Your task to perform on an android device: toggle location history Image 0: 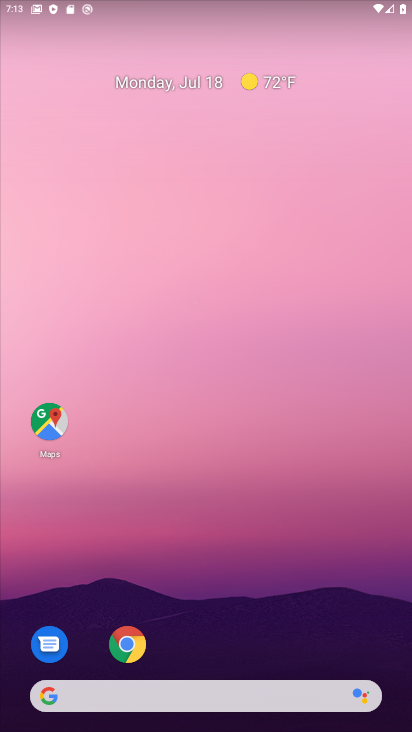
Step 0: drag from (361, 657) to (235, 42)
Your task to perform on an android device: toggle location history Image 1: 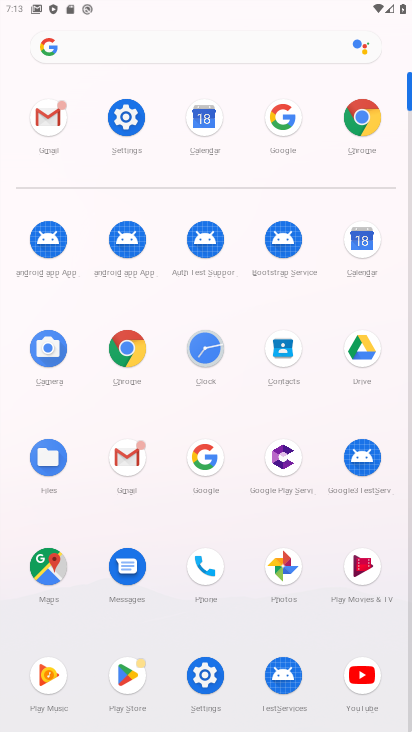
Step 1: click (206, 684)
Your task to perform on an android device: toggle location history Image 2: 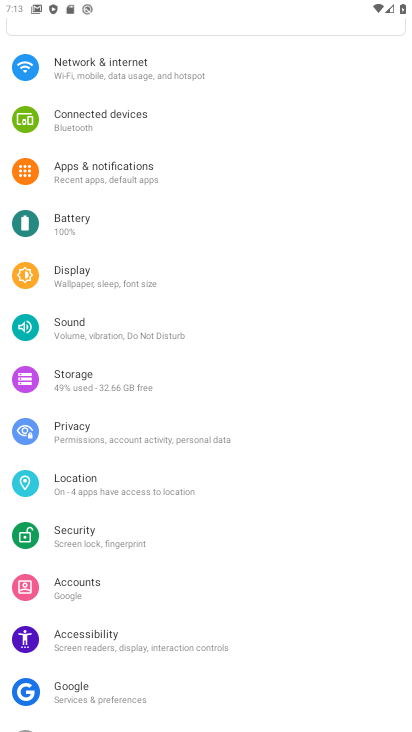
Step 2: click (87, 483)
Your task to perform on an android device: toggle location history Image 3: 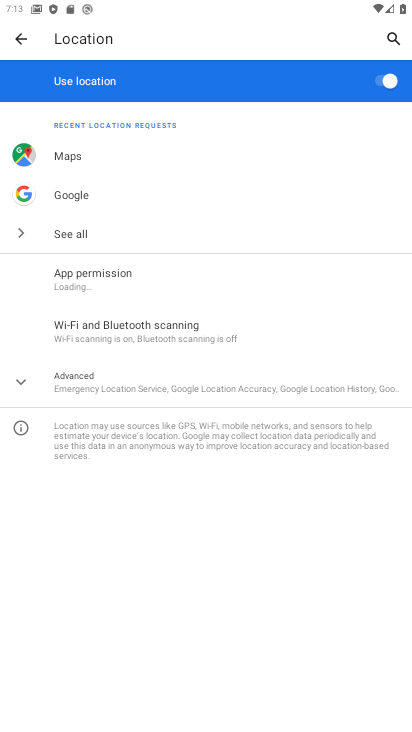
Step 3: click (71, 381)
Your task to perform on an android device: toggle location history Image 4: 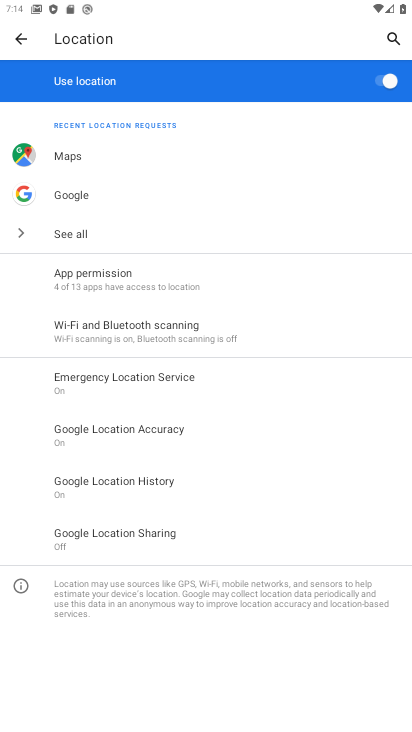
Step 4: click (116, 481)
Your task to perform on an android device: toggle location history Image 5: 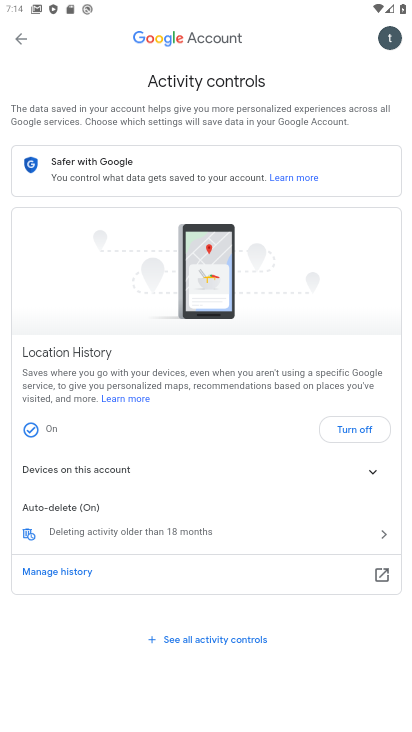
Step 5: click (135, 533)
Your task to perform on an android device: toggle location history Image 6: 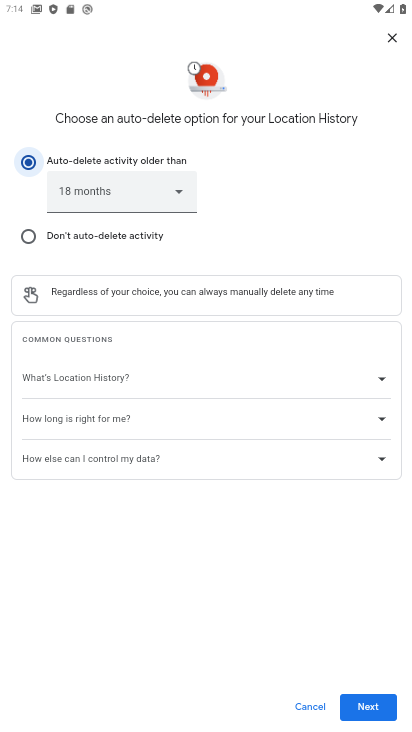
Step 6: task complete